Your task to perform on an android device: Go to Google maps Image 0: 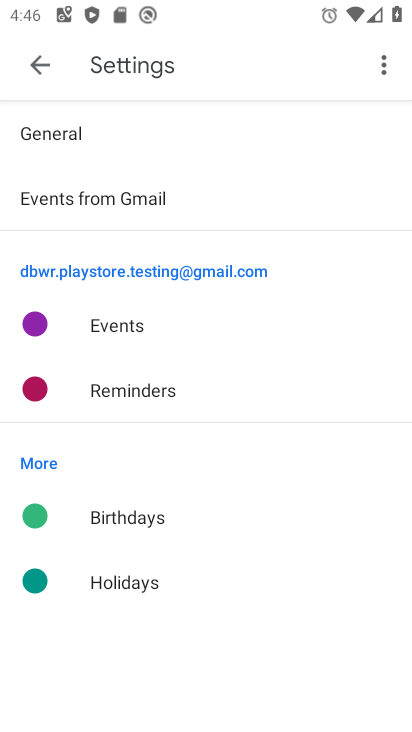
Step 0: press home button
Your task to perform on an android device: Go to Google maps Image 1: 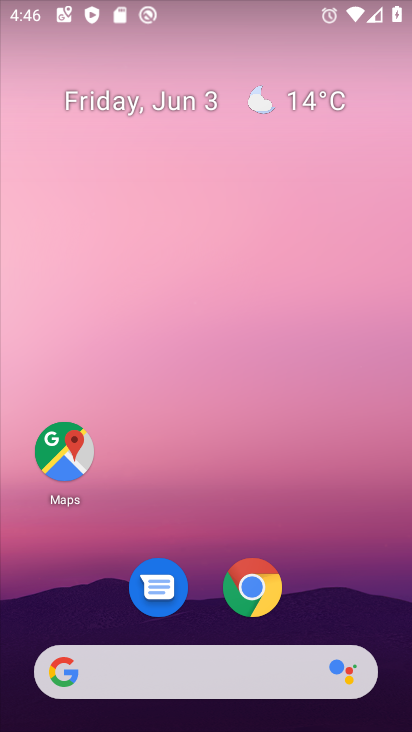
Step 1: drag from (202, 649) to (204, 178)
Your task to perform on an android device: Go to Google maps Image 2: 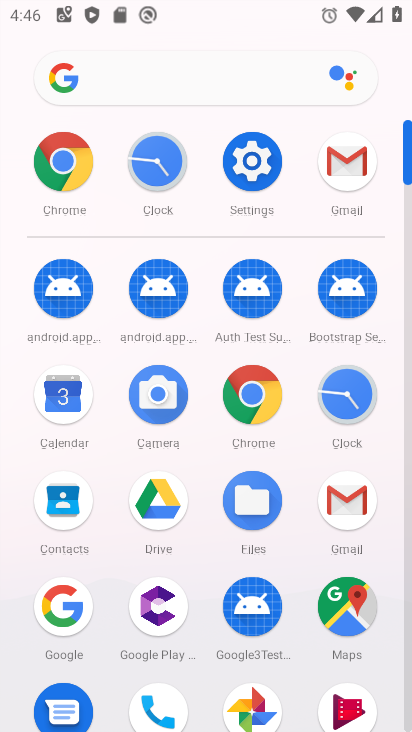
Step 2: click (57, 620)
Your task to perform on an android device: Go to Google maps Image 3: 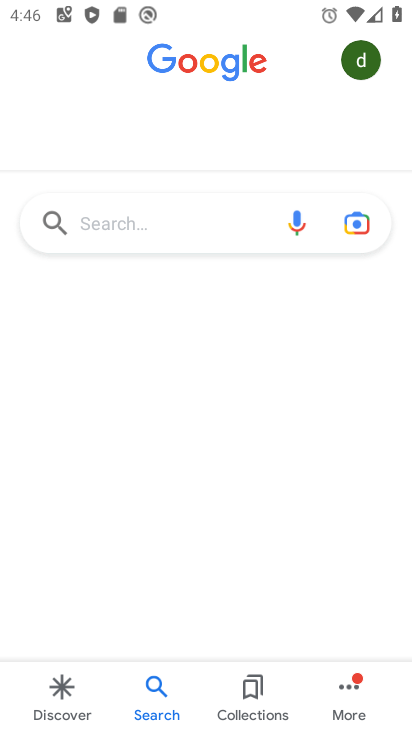
Step 3: task complete